Your task to perform on an android device: Open calendar and show me the first week of next month Image 0: 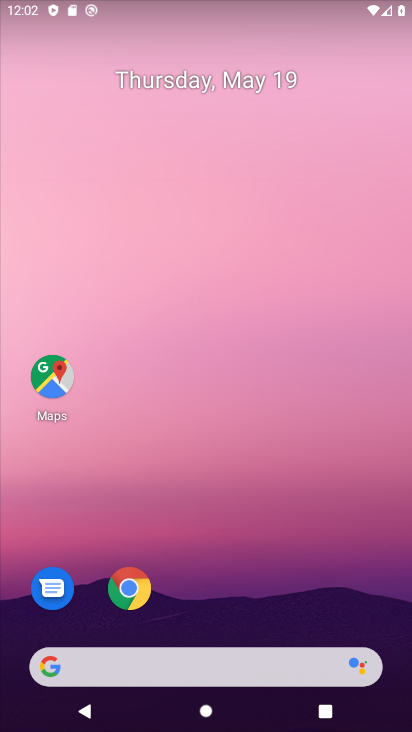
Step 0: drag from (257, 608) to (194, 9)
Your task to perform on an android device: Open calendar and show me the first week of next month Image 1: 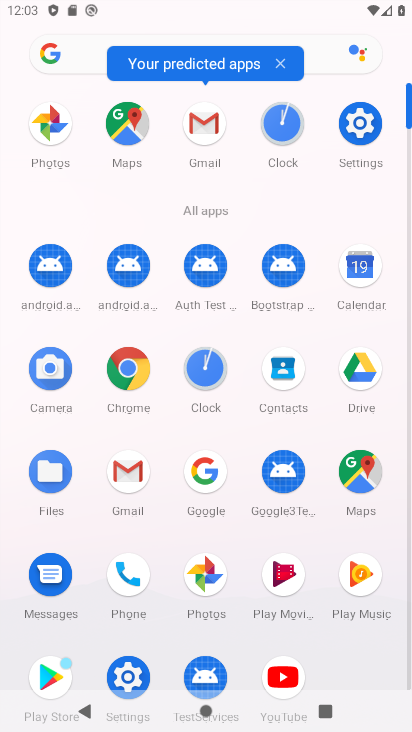
Step 1: click (367, 280)
Your task to perform on an android device: Open calendar and show me the first week of next month Image 2: 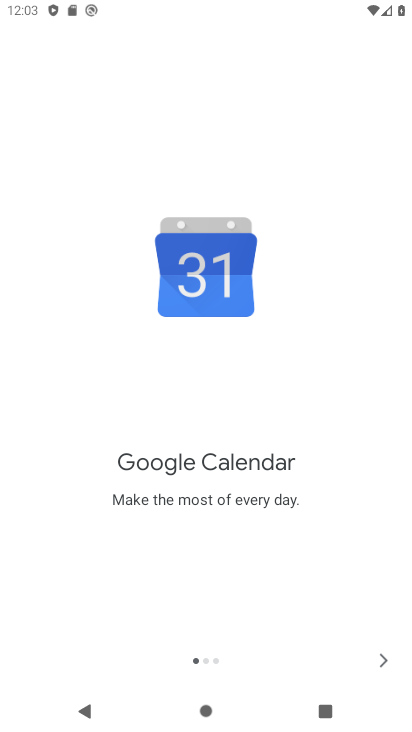
Step 2: click (377, 652)
Your task to perform on an android device: Open calendar and show me the first week of next month Image 3: 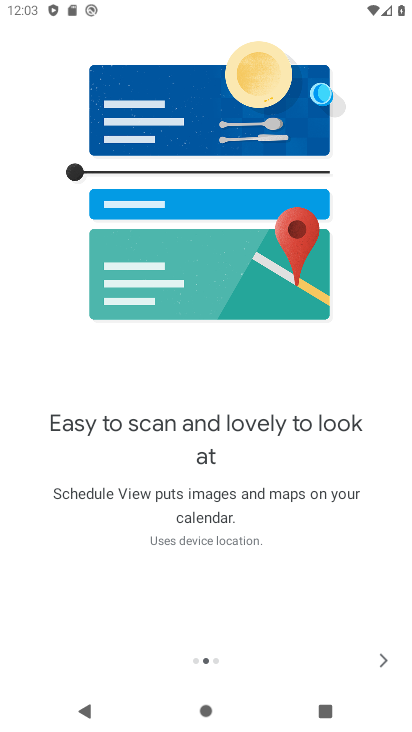
Step 3: click (377, 652)
Your task to perform on an android device: Open calendar and show me the first week of next month Image 4: 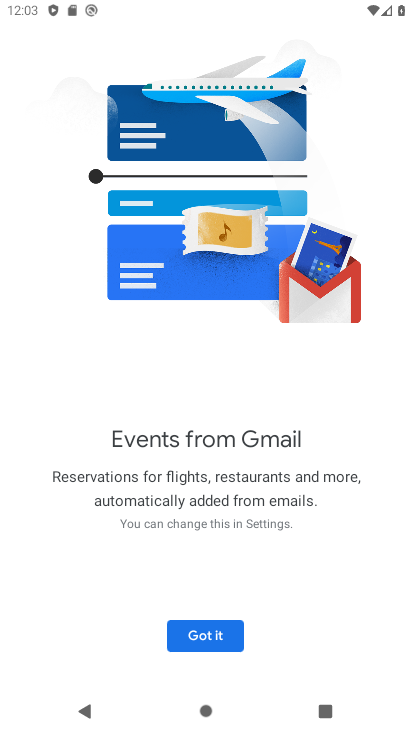
Step 4: click (228, 637)
Your task to perform on an android device: Open calendar and show me the first week of next month Image 5: 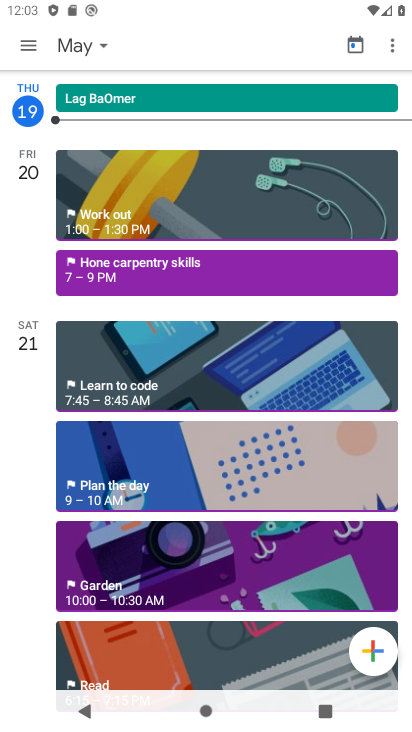
Step 5: click (82, 38)
Your task to perform on an android device: Open calendar and show me the first week of next month Image 6: 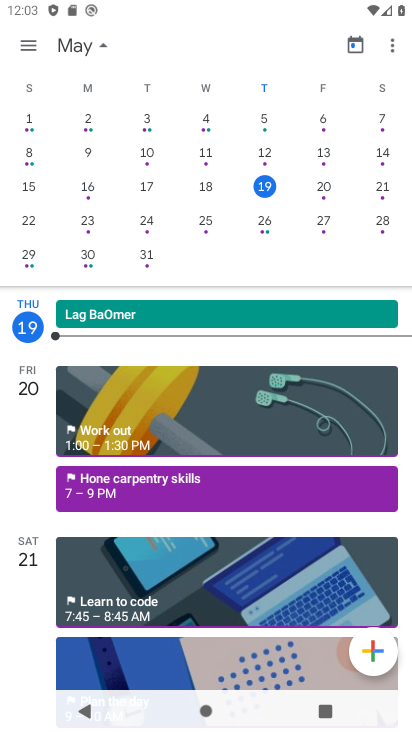
Step 6: drag from (392, 181) to (22, 62)
Your task to perform on an android device: Open calendar and show me the first week of next month Image 7: 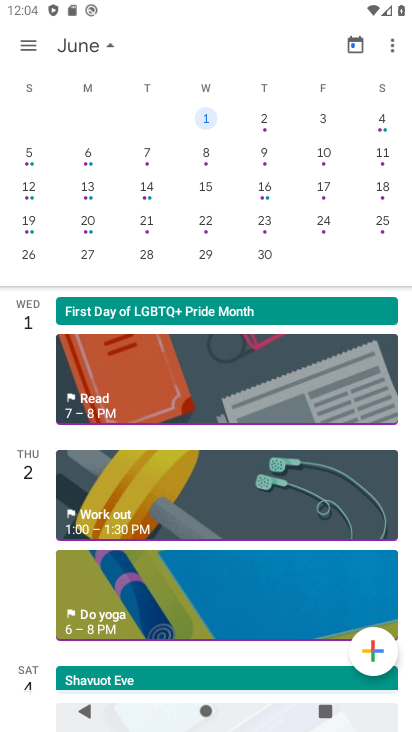
Step 7: click (200, 115)
Your task to perform on an android device: Open calendar and show me the first week of next month Image 8: 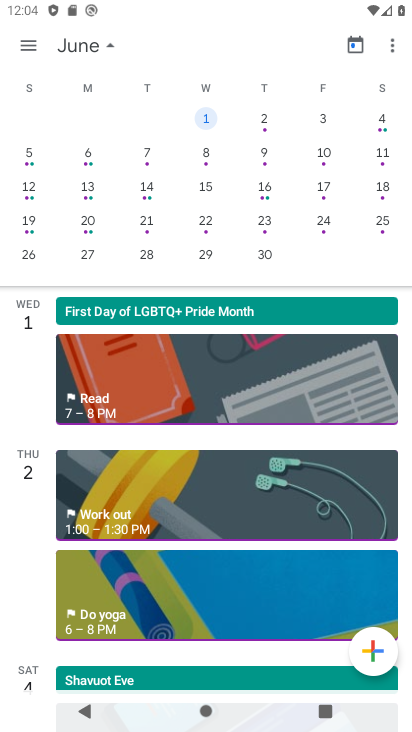
Step 8: click (31, 51)
Your task to perform on an android device: Open calendar and show me the first week of next month Image 9: 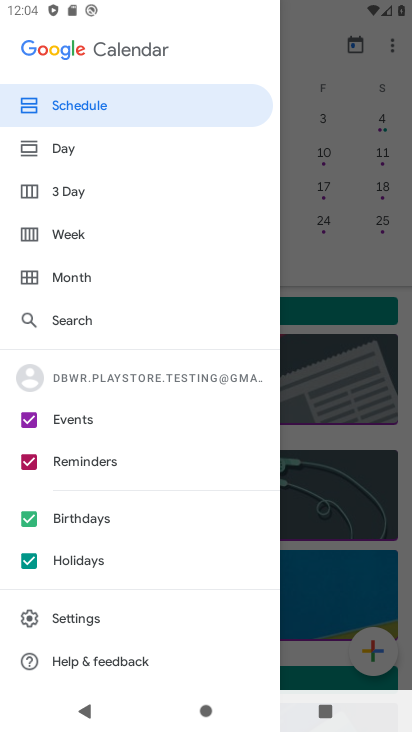
Step 9: click (129, 246)
Your task to perform on an android device: Open calendar and show me the first week of next month Image 10: 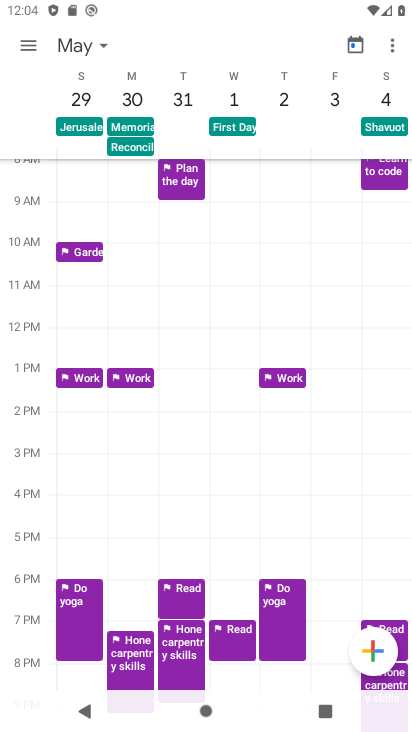
Step 10: task complete